Your task to perform on an android device: Open the Play Movies app and select the watchlist tab. Image 0: 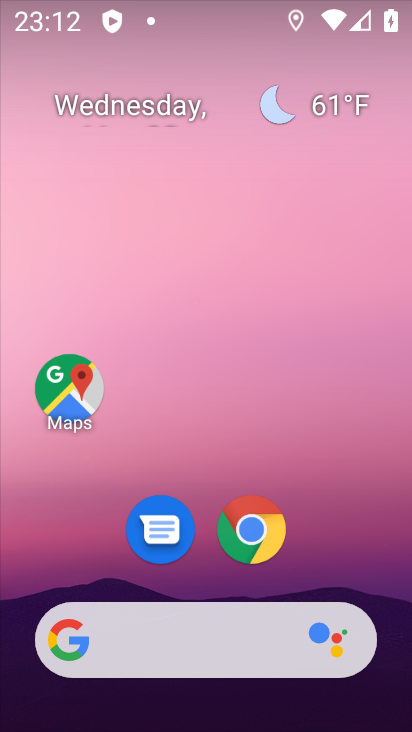
Step 0: drag from (387, 579) to (382, 240)
Your task to perform on an android device: Open the Play Movies app and select the watchlist tab. Image 1: 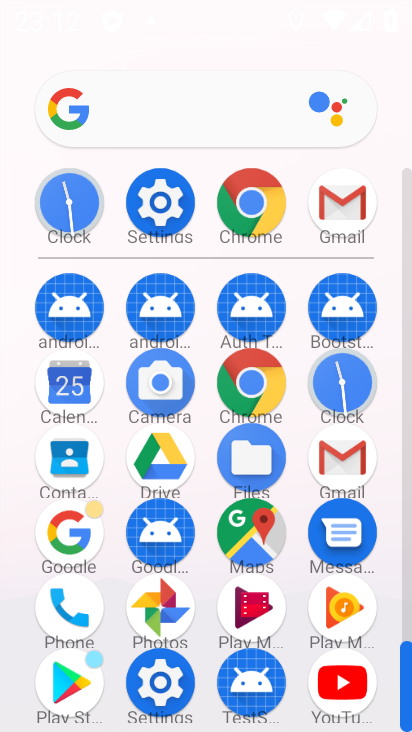
Step 1: click (257, 614)
Your task to perform on an android device: Open the Play Movies app and select the watchlist tab. Image 2: 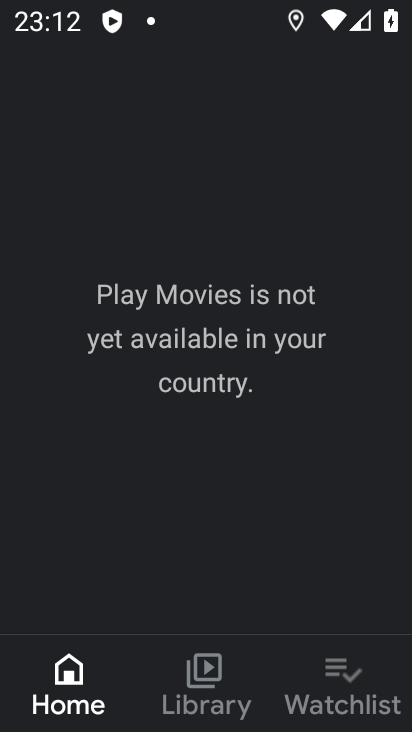
Step 2: click (338, 673)
Your task to perform on an android device: Open the Play Movies app and select the watchlist tab. Image 3: 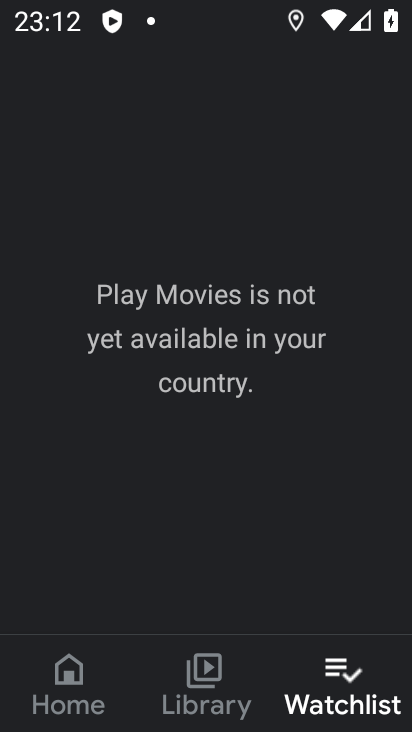
Step 3: task complete